Your task to perform on an android device: open a new tab in the chrome app Image 0: 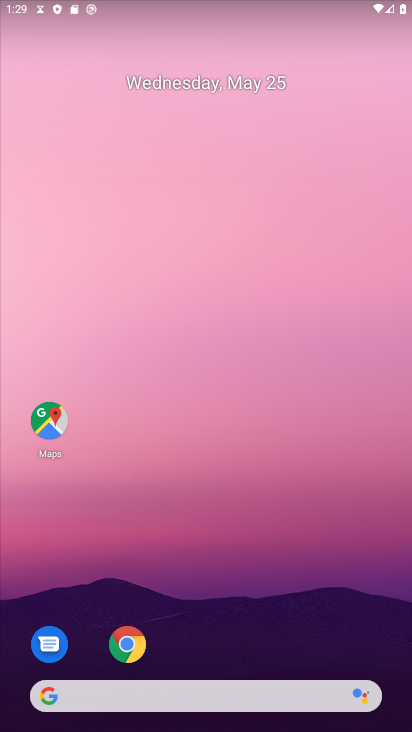
Step 0: drag from (191, 630) to (127, 106)
Your task to perform on an android device: open a new tab in the chrome app Image 1: 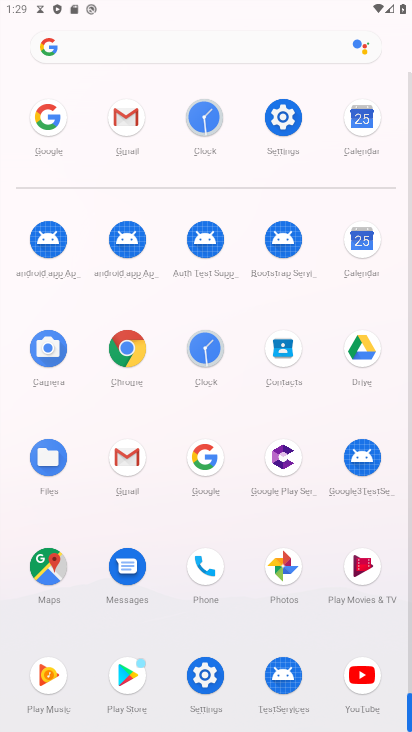
Step 1: click (118, 394)
Your task to perform on an android device: open a new tab in the chrome app Image 2: 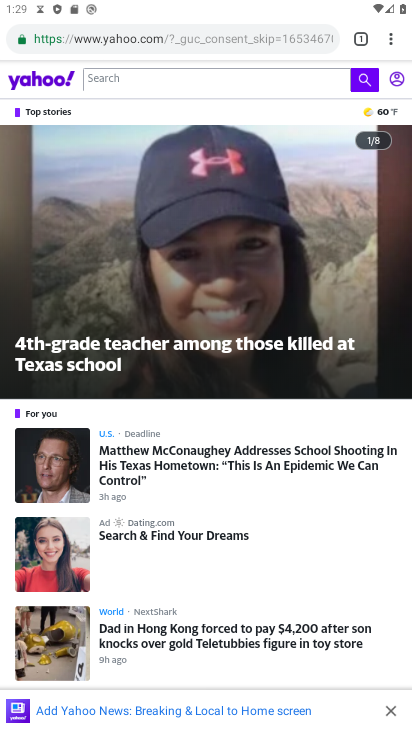
Step 2: click (366, 39)
Your task to perform on an android device: open a new tab in the chrome app Image 3: 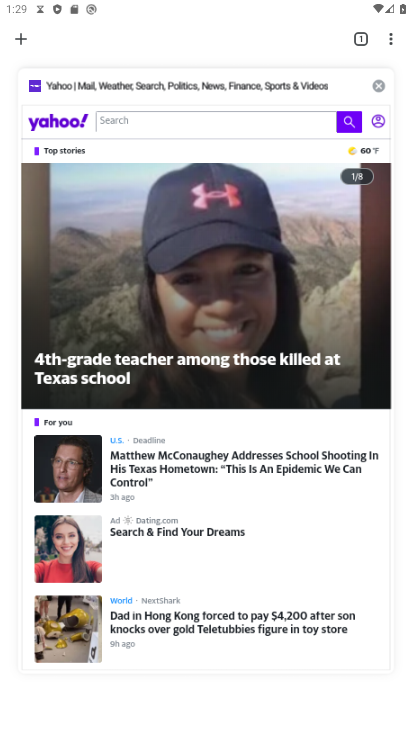
Step 3: click (16, 39)
Your task to perform on an android device: open a new tab in the chrome app Image 4: 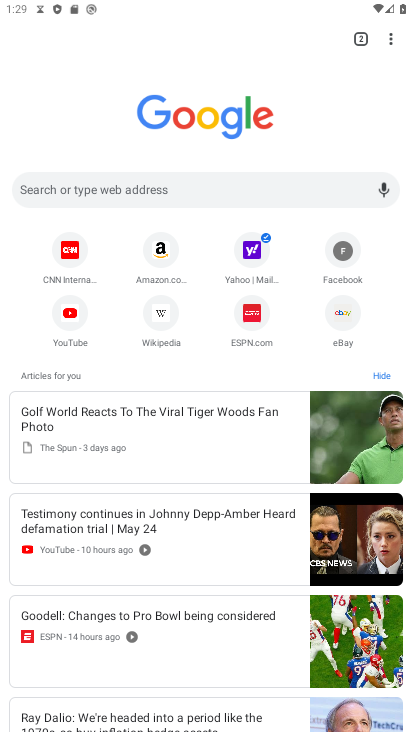
Step 4: task complete